Your task to perform on an android device: Open settings on Google Maps Image 0: 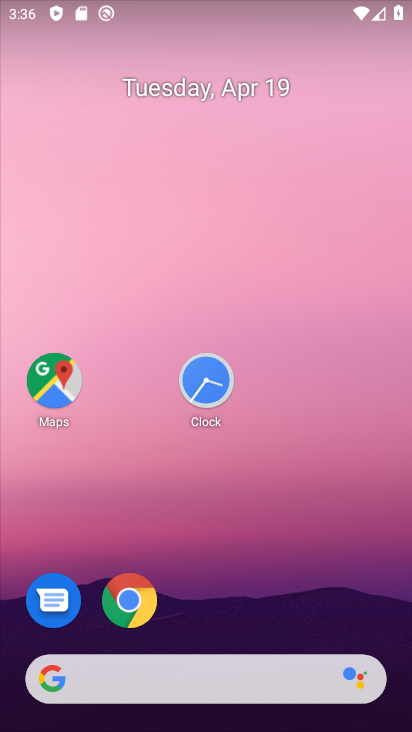
Step 0: drag from (364, 620) to (158, 43)
Your task to perform on an android device: Open settings on Google Maps Image 1: 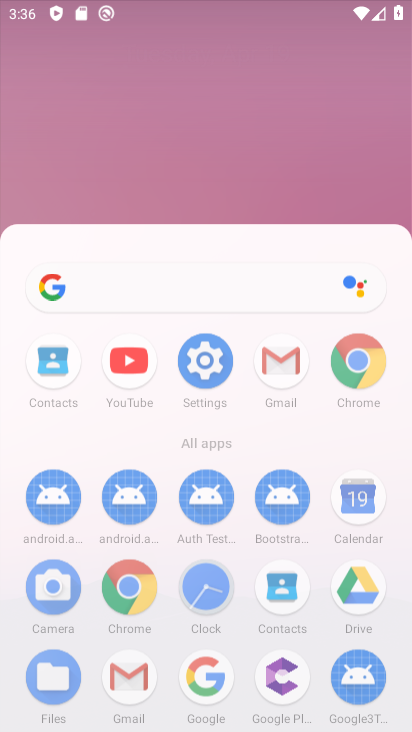
Step 1: drag from (358, 579) to (88, 81)
Your task to perform on an android device: Open settings on Google Maps Image 2: 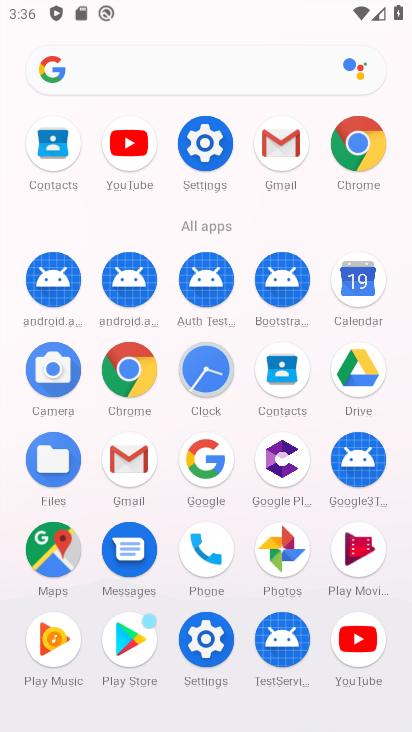
Step 2: click (197, 469)
Your task to perform on an android device: Open settings on Google Maps Image 3: 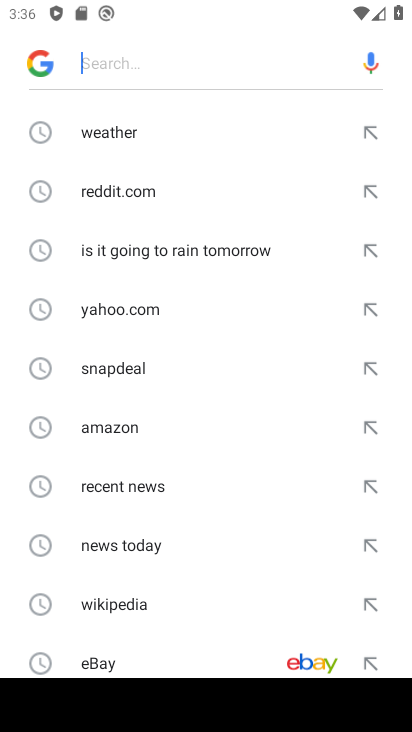
Step 3: press home button
Your task to perform on an android device: Open settings on Google Maps Image 4: 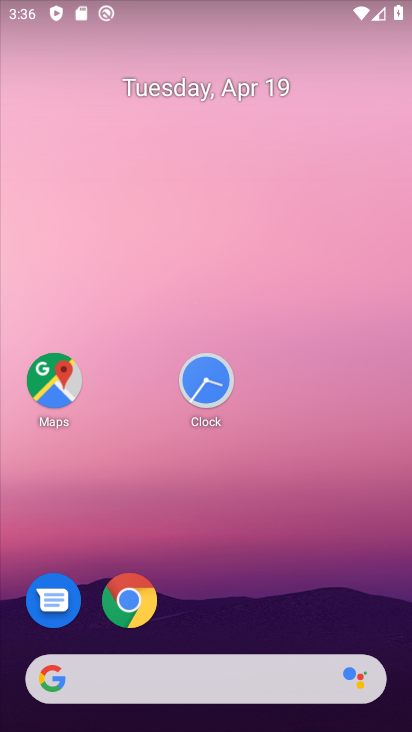
Step 4: drag from (78, 465) to (323, 429)
Your task to perform on an android device: Open settings on Google Maps Image 5: 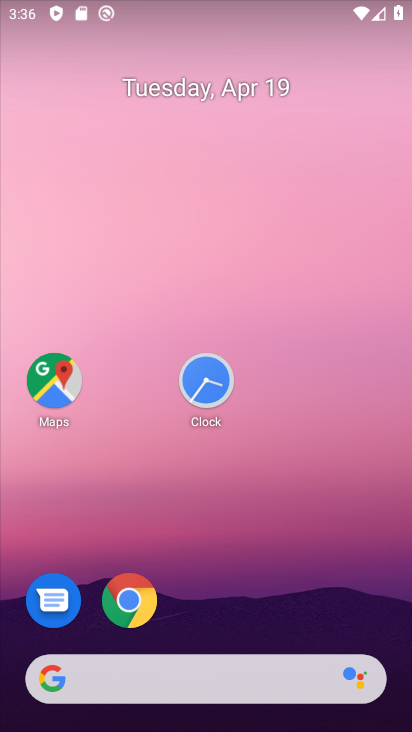
Step 5: drag from (73, 443) to (179, 418)
Your task to perform on an android device: Open settings on Google Maps Image 6: 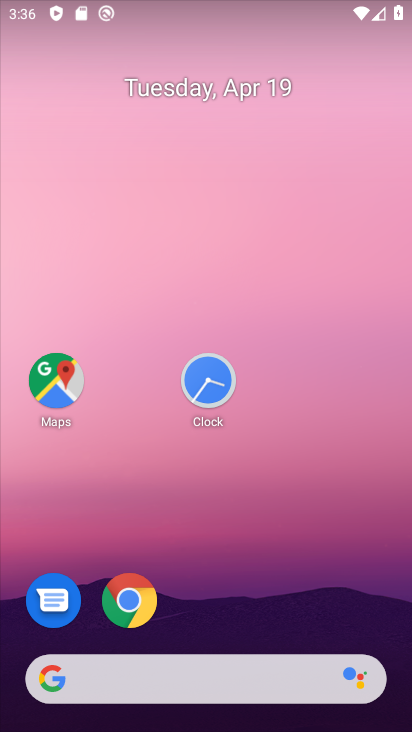
Step 6: drag from (188, 422) to (408, 463)
Your task to perform on an android device: Open settings on Google Maps Image 7: 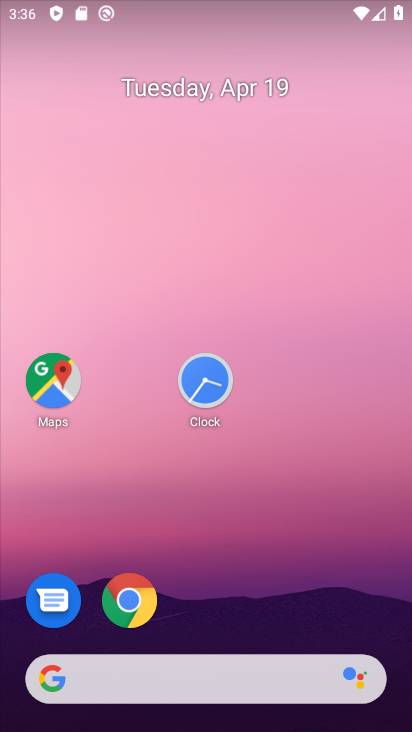
Step 7: click (398, 402)
Your task to perform on an android device: Open settings on Google Maps Image 8: 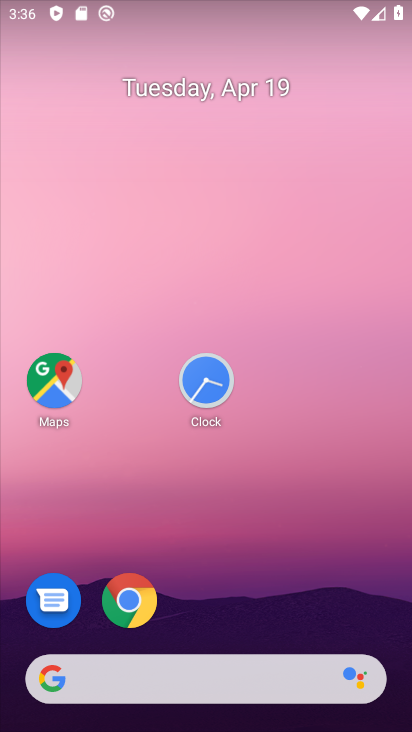
Step 8: click (60, 386)
Your task to perform on an android device: Open settings on Google Maps Image 9: 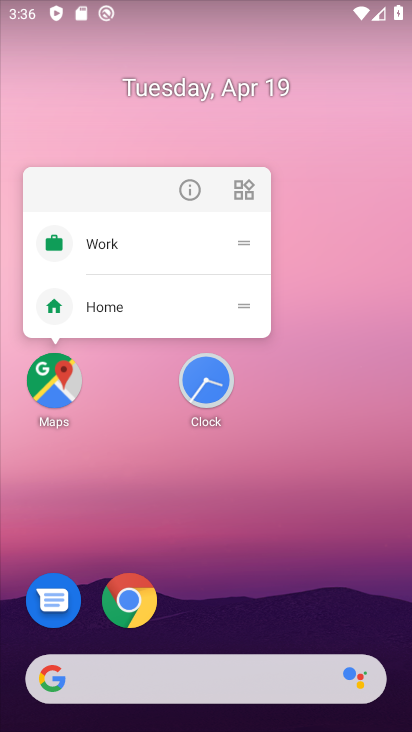
Step 9: click (60, 387)
Your task to perform on an android device: Open settings on Google Maps Image 10: 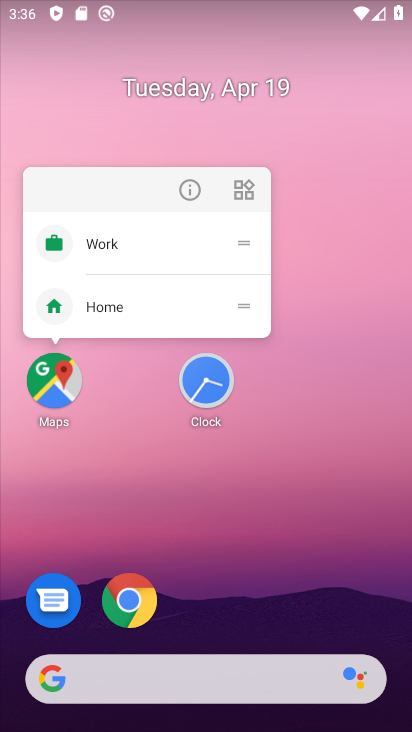
Step 10: click (60, 387)
Your task to perform on an android device: Open settings on Google Maps Image 11: 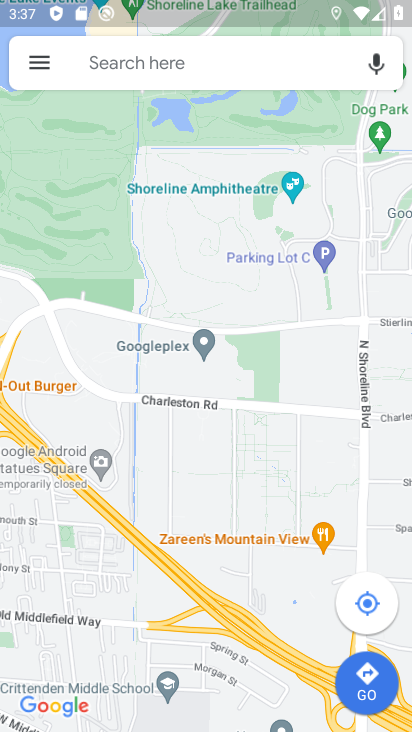
Step 11: click (38, 72)
Your task to perform on an android device: Open settings on Google Maps Image 12: 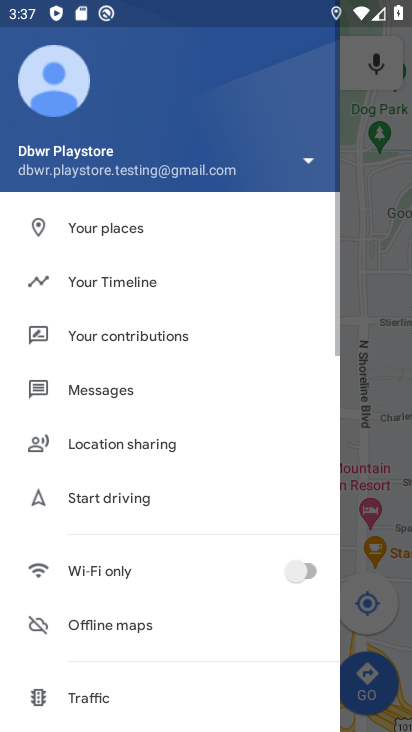
Step 12: click (35, 66)
Your task to perform on an android device: Open settings on Google Maps Image 13: 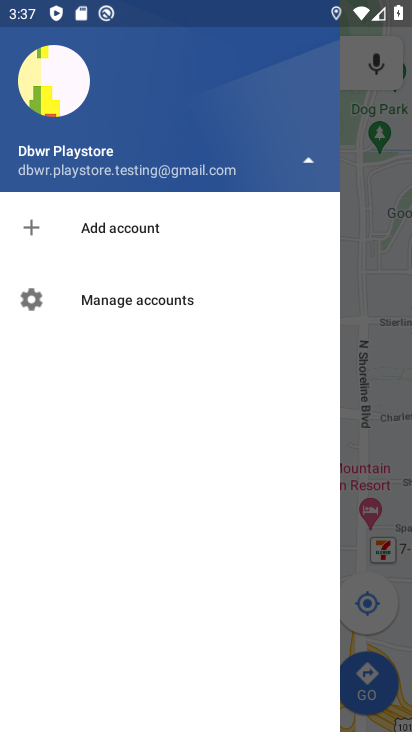
Step 13: click (309, 166)
Your task to perform on an android device: Open settings on Google Maps Image 14: 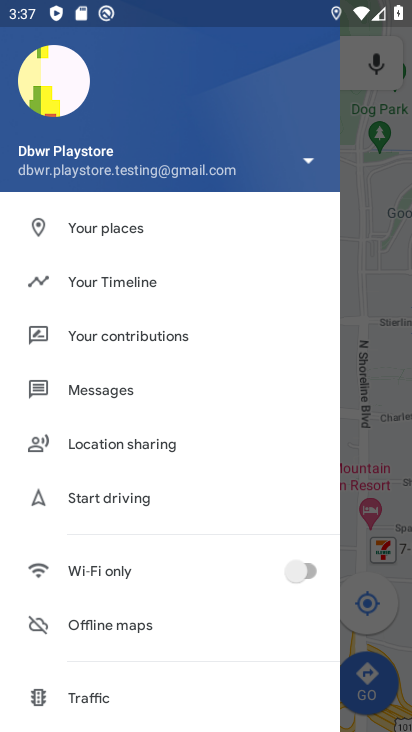
Step 14: click (98, 272)
Your task to perform on an android device: Open settings on Google Maps Image 15: 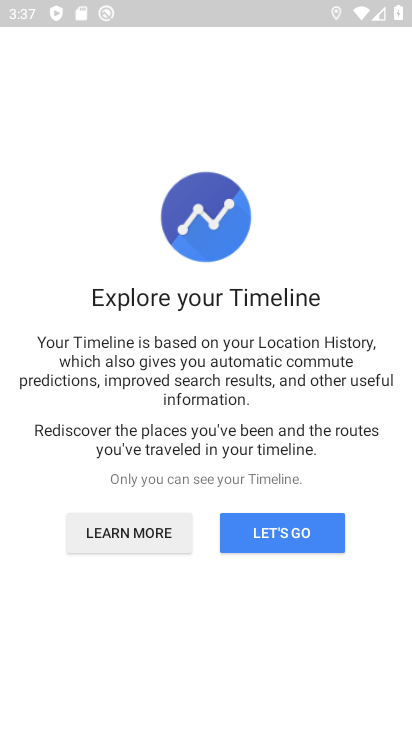
Step 15: click (299, 532)
Your task to perform on an android device: Open settings on Google Maps Image 16: 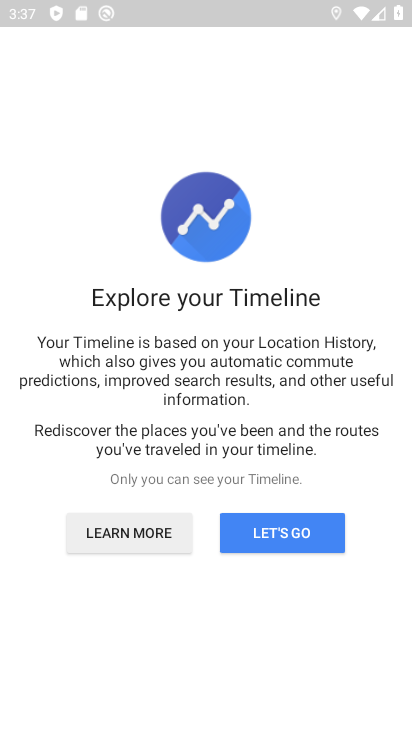
Step 16: click (299, 532)
Your task to perform on an android device: Open settings on Google Maps Image 17: 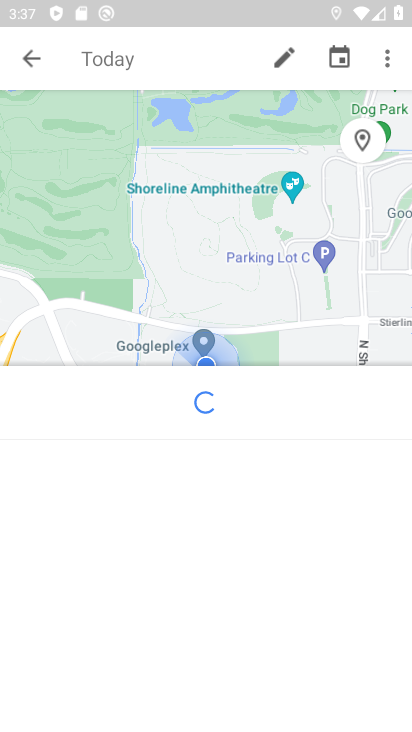
Step 17: click (299, 532)
Your task to perform on an android device: Open settings on Google Maps Image 18: 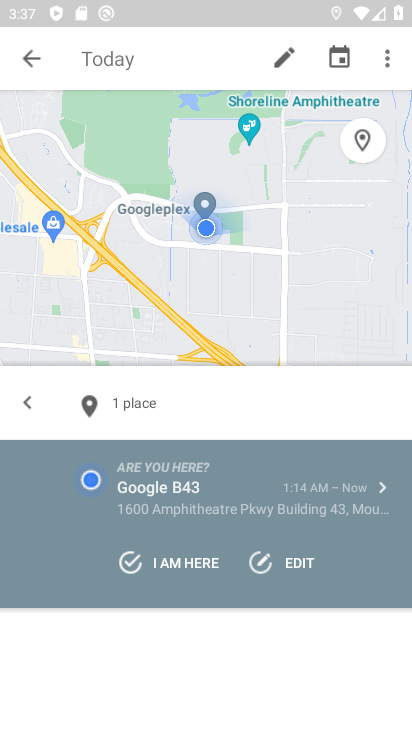
Step 18: click (379, 64)
Your task to perform on an android device: Open settings on Google Maps Image 19: 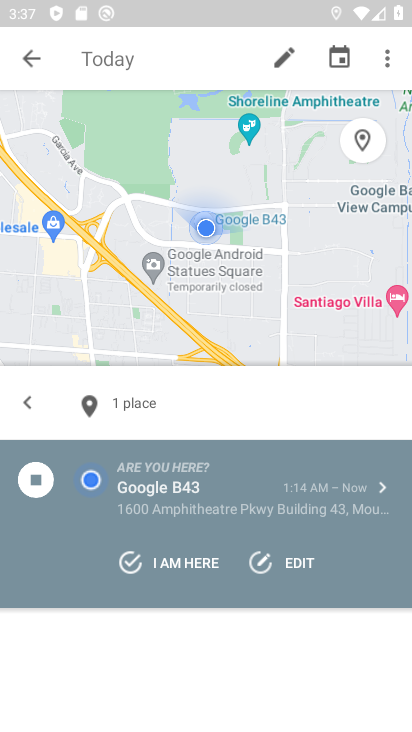
Step 19: click (387, 55)
Your task to perform on an android device: Open settings on Google Maps Image 20: 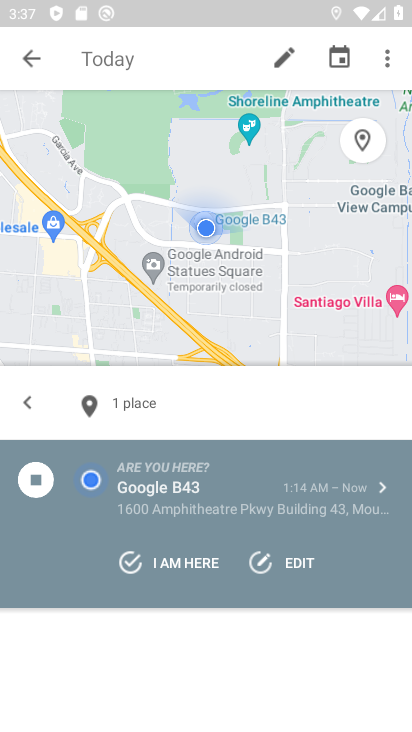
Step 20: click (387, 55)
Your task to perform on an android device: Open settings on Google Maps Image 21: 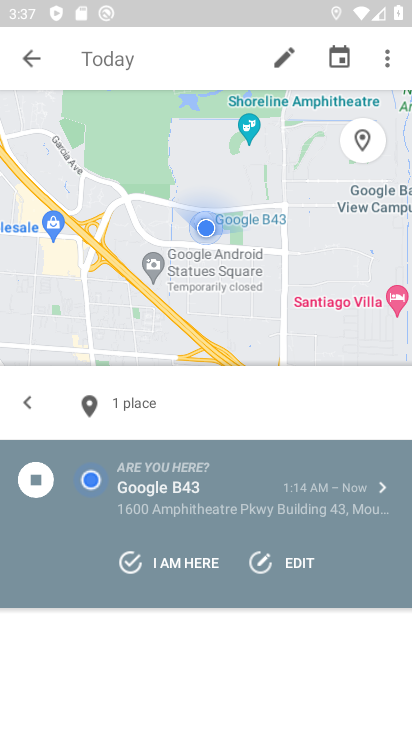
Step 21: click (387, 56)
Your task to perform on an android device: Open settings on Google Maps Image 22: 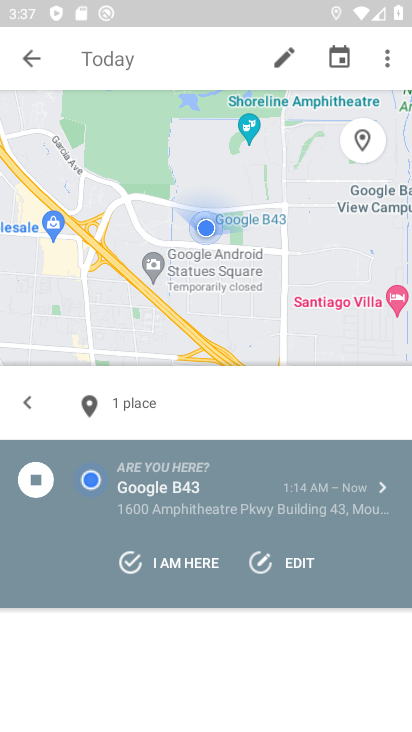
Step 22: click (384, 60)
Your task to perform on an android device: Open settings on Google Maps Image 23: 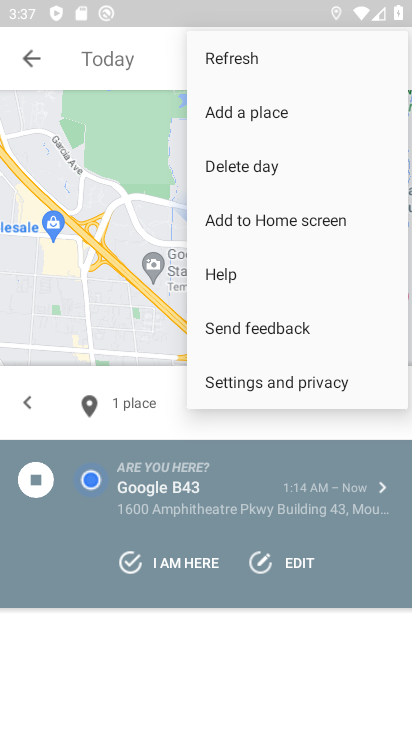
Step 23: click (247, 372)
Your task to perform on an android device: Open settings on Google Maps Image 24: 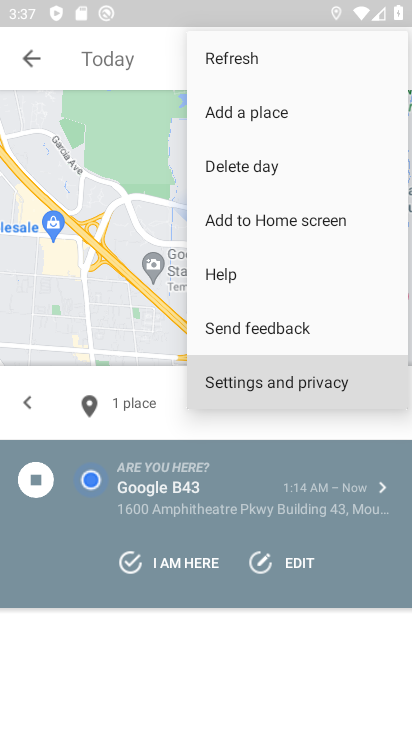
Step 24: click (246, 371)
Your task to perform on an android device: Open settings on Google Maps Image 25: 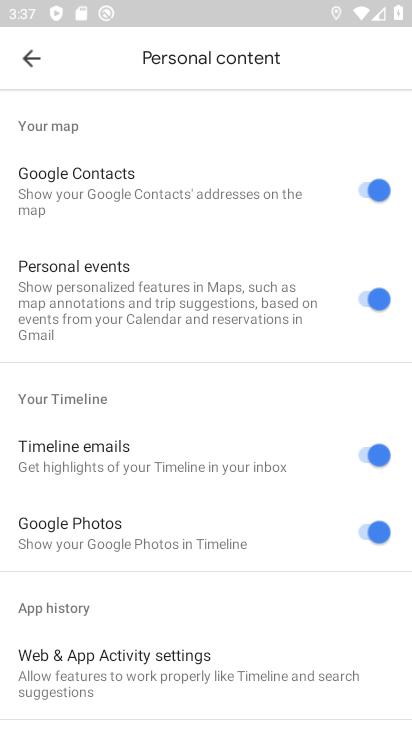
Step 25: task complete